Your task to perform on an android device: turn on sleep mode Image 0: 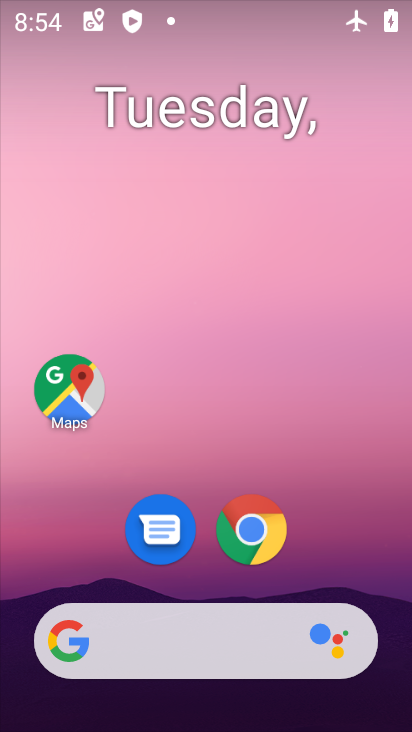
Step 0: drag from (233, 664) to (224, 253)
Your task to perform on an android device: turn on sleep mode Image 1: 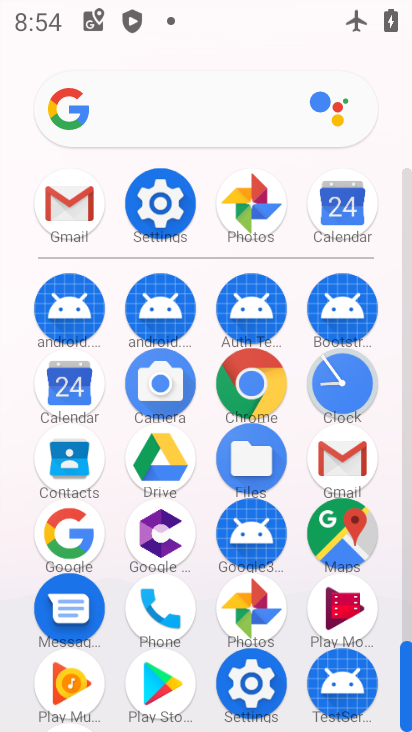
Step 1: click (171, 222)
Your task to perform on an android device: turn on sleep mode Image 2: 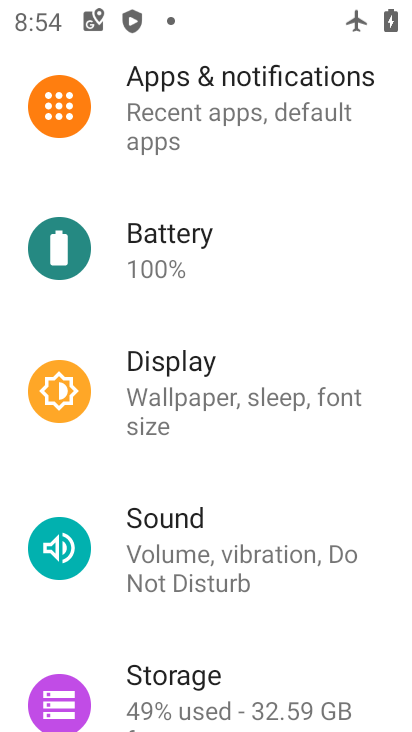
Step 2: drag from (171, 221) to (149, 134)
Your task to perform on an android device: turn on sleep mode Image 3: 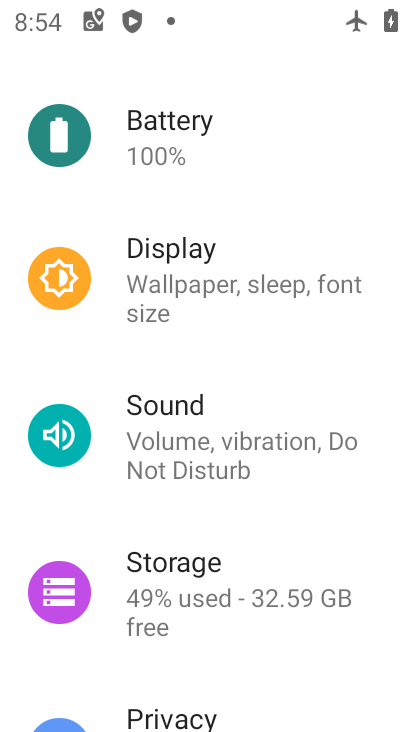
Step 3: click (200, 319)
Your task to perform on an android device: turn on sleep mode Image 4: 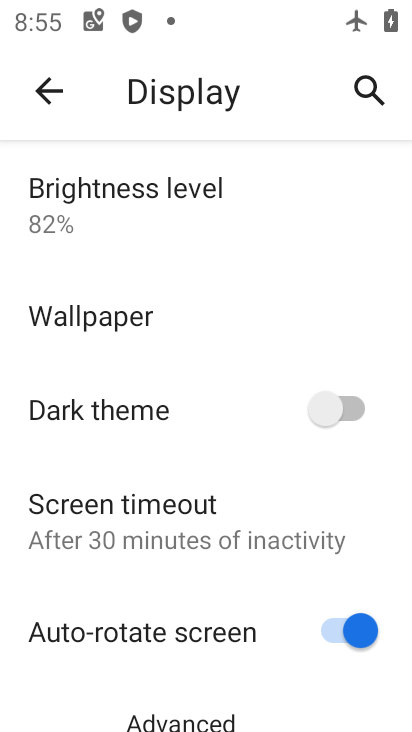
Step 4: drag from (224, 513) to (412, 130)
Your task to perform on an android device: turn on sleep mode Image 5: 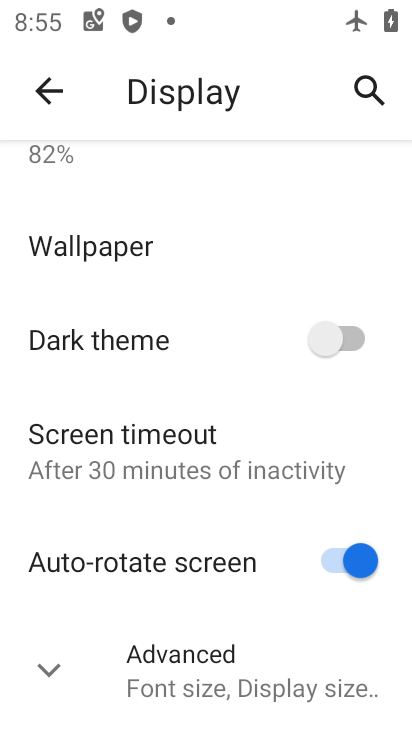
Step 5: click (179, 693)
Your task to perform on an android device: turn on sleep mode Image 6: 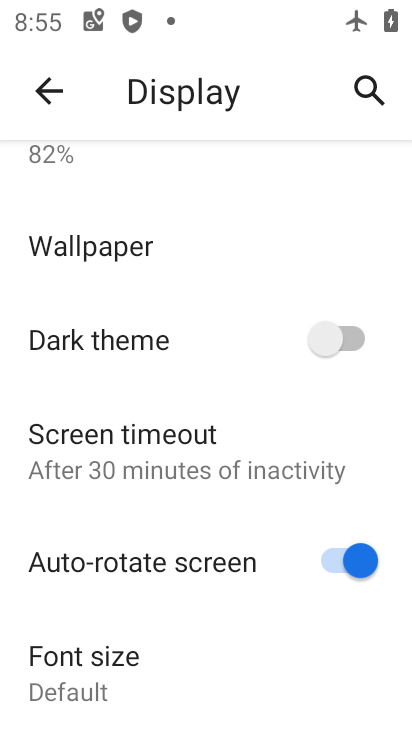
Step 6: task complete